Your task to perform on an android device: Clear all items from cart on costco. Add "usb-c" to the cart on costco, then select checkout. Image 0: 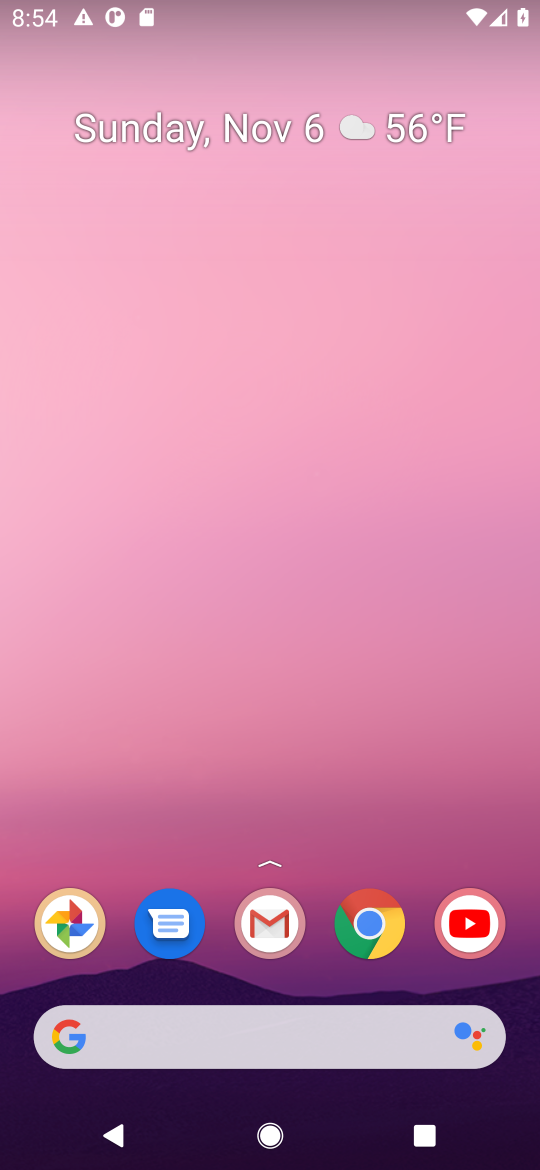
Step 0: click (381, 939)
Your task to perform on an android device: Clear all items from cart on costco. Add "usb-c" to the cart on costco, then select checkout. Image 1: 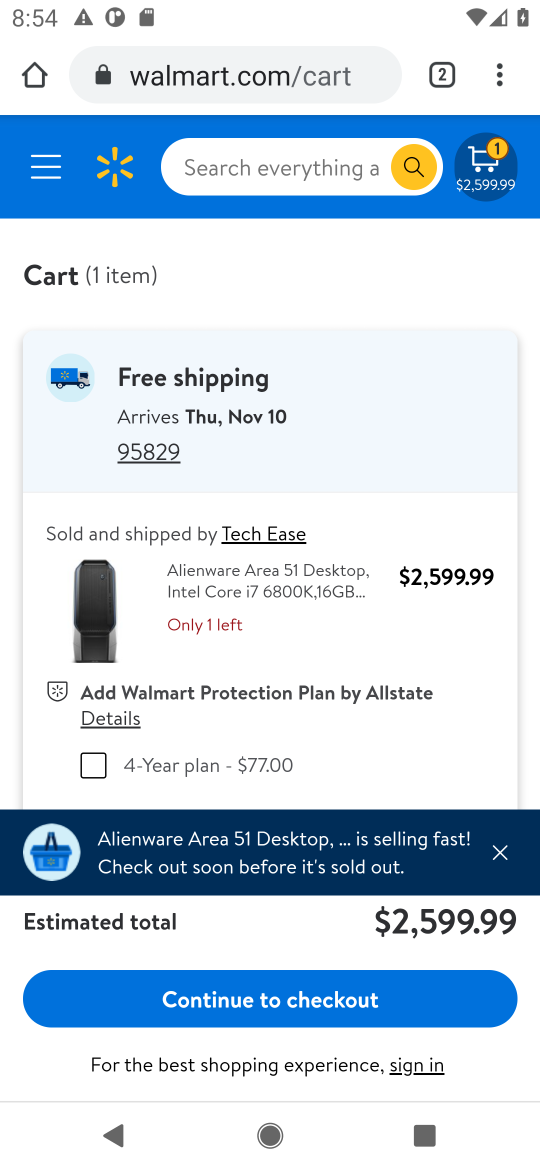
Step 1: click (259, 78)
Your task to perform on an android device: Clear all items from cart on costco. Add "usb-c" to the cart on costco, then select checkout. Image 2: 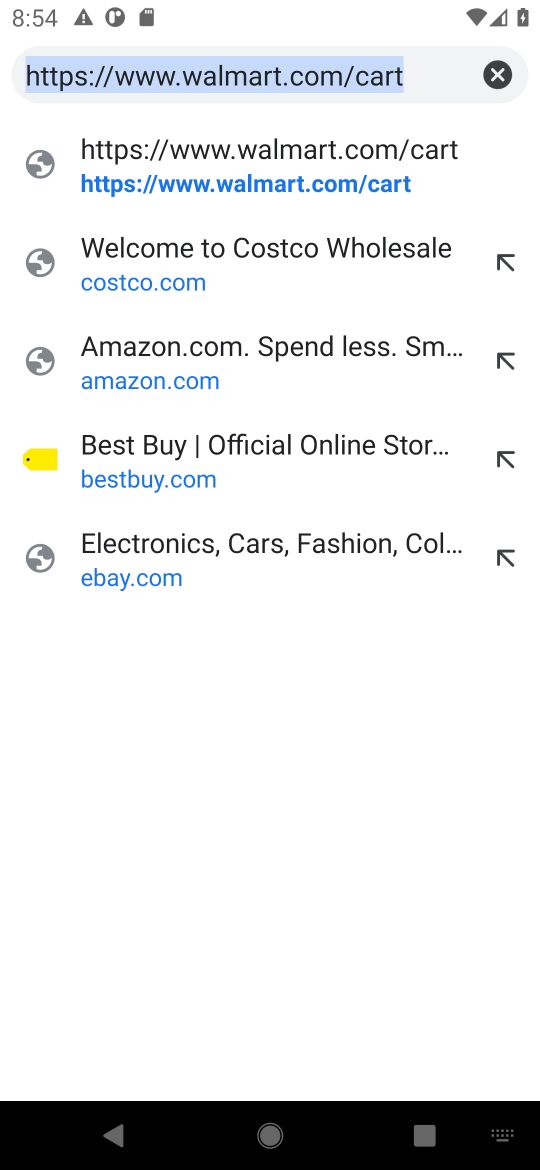
Step 2: click (135, 289)
Your task to perform on an android device: Clear all items from cart on costco. Add "usb-c" to the cart on costco, then select checkout. Image 3: 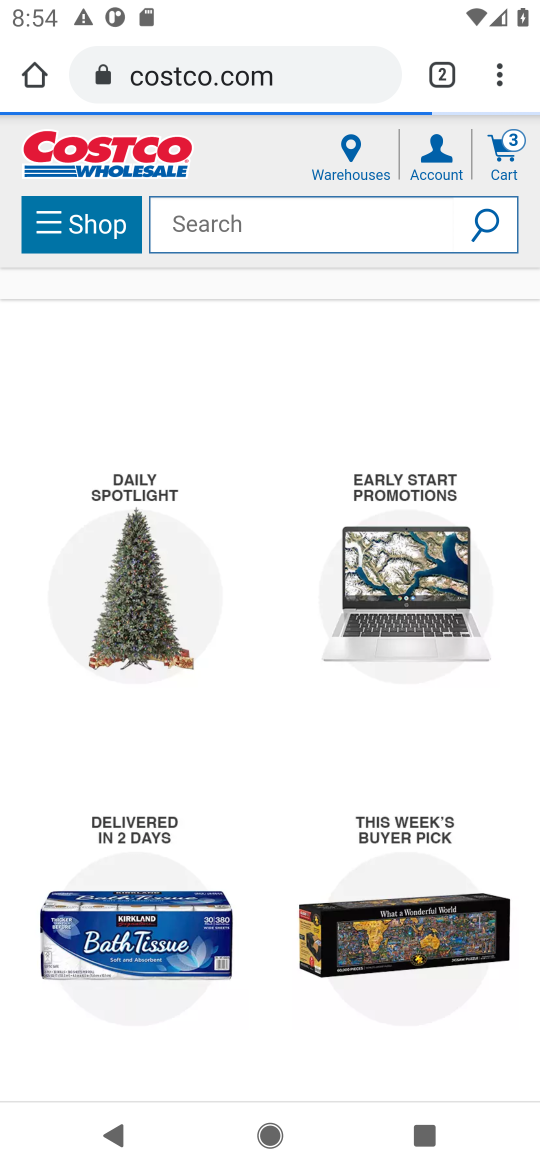
Step 3: click (503, 140)
Your task to perform on an android device: Clear all items from cart on costco. Add "usb-c" to the cart on costco, then select checkout. Image 4: 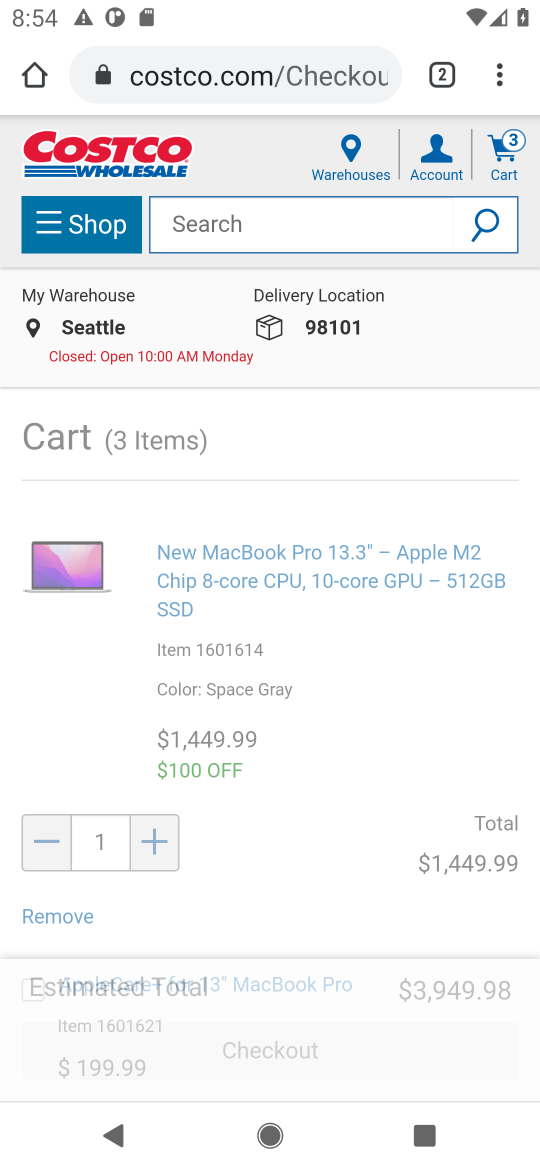
Step 4: click (85, 920)
Your task to perform on an android device: Clear all items from cart on costco. Add "usb-c" to the cart on costco, then select checkout. Image 5: 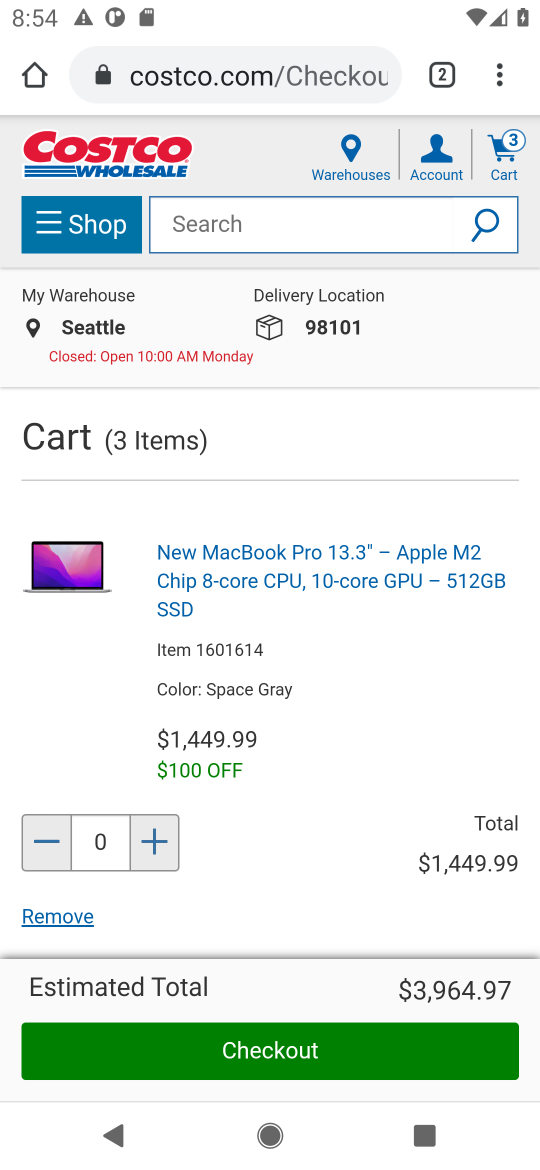
Step 5: click (85, 920)
Your task to perform on an android device: Clear all items from cart on costco. Add "usb-c" to the cart on costco, then select checkout. Image 6: 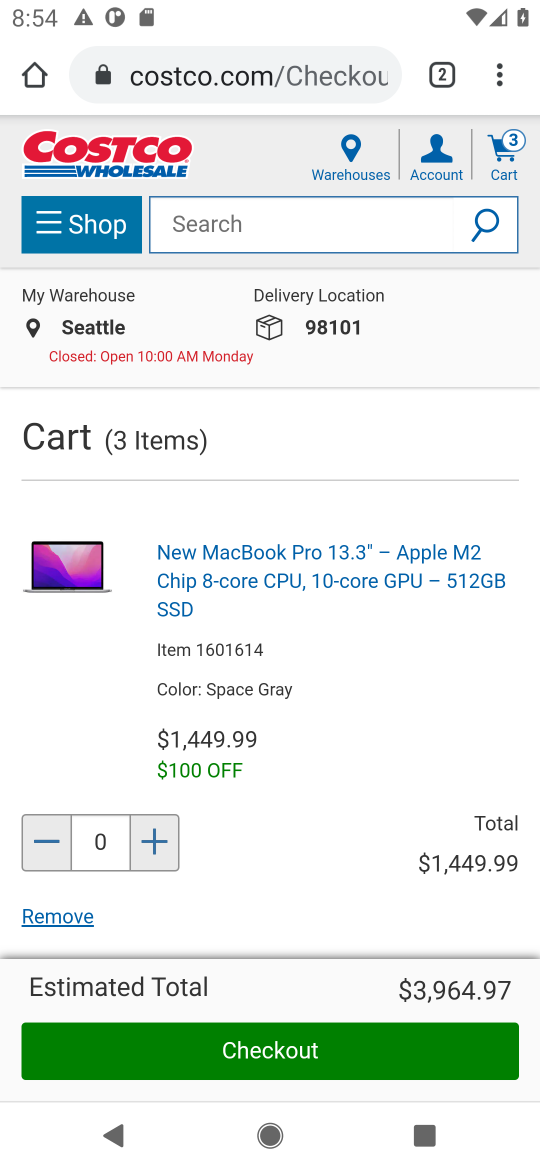
Step 6: drag from (347, 893) to (361, 382)
Your task to perform on an android device: Clear all items from cart on costco. Add "usb-c" to the cart on costco, then select checkout. Image 7: 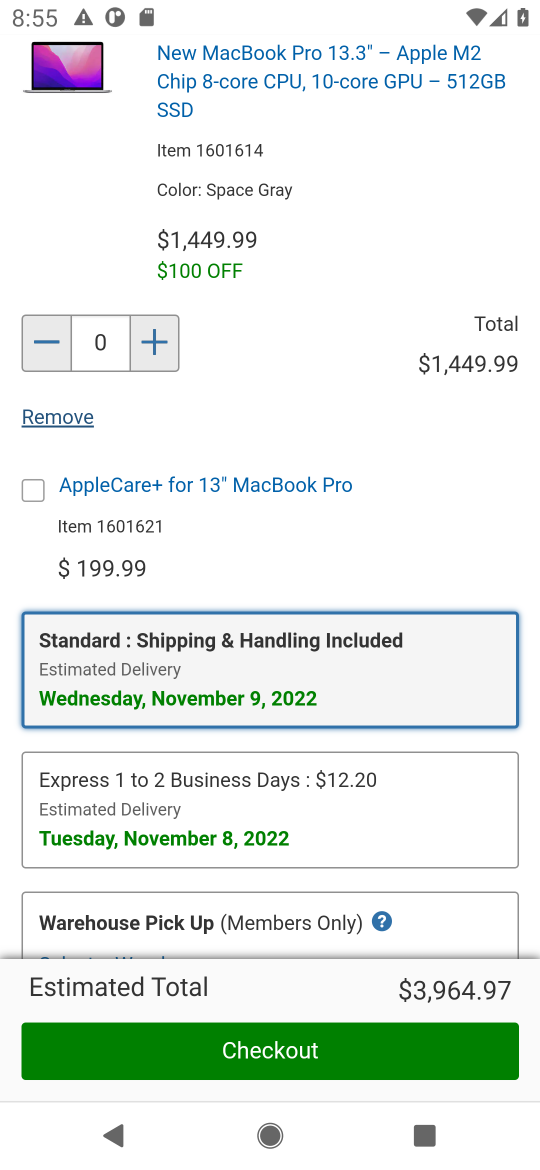
Step 7: click (51, 538)
Your task to perform on an android device: Clear all items from cart on costco. Add "usb-c" to the cart on costco, then select checkout. Image 8: 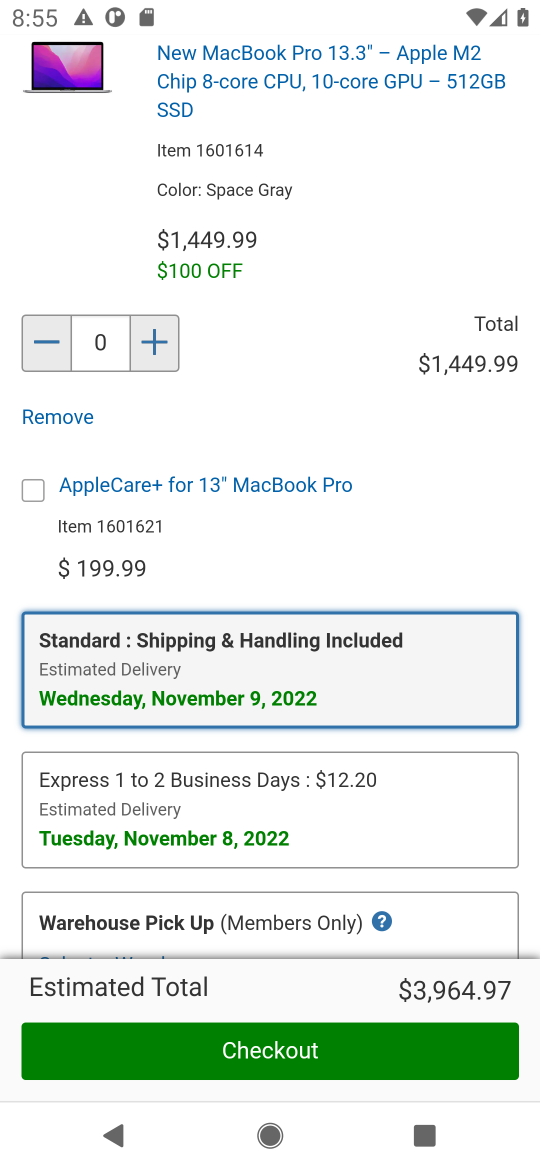
Step 8: drag from (321, 632) to (333, 242)
Your task to perform on an android device: Clear all items from cart on costco. Add "usb-c" to the cart on costco, then select checkout. Image 9: 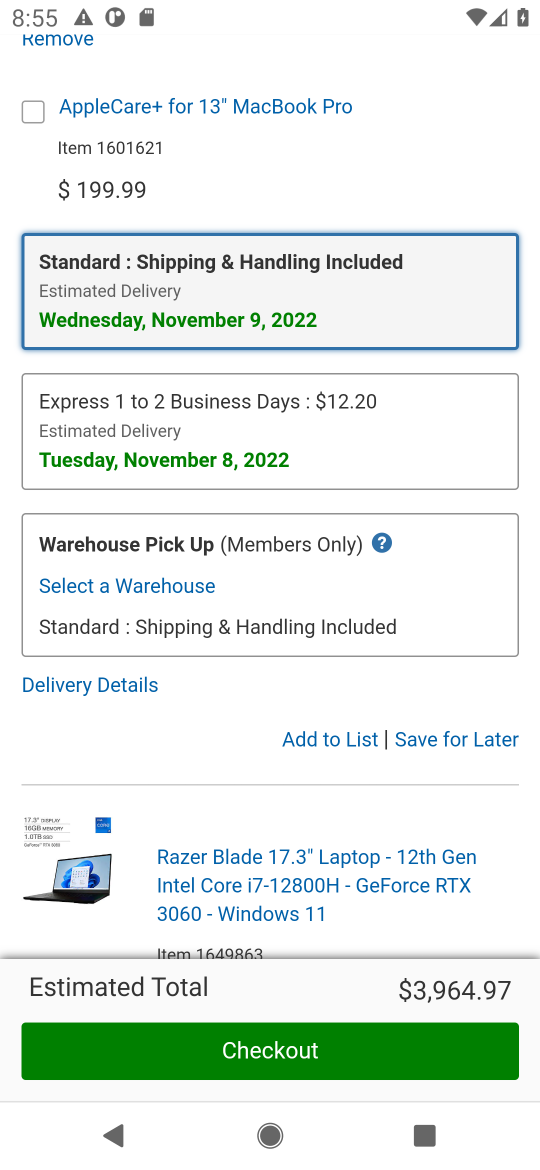
Step 9: drag from (302, 689) to (311, 374)
Your task to perform on an android device: Clear all items from cart on costco. Add "usb-c" to the cart on costco, then select checkout. Image 10: 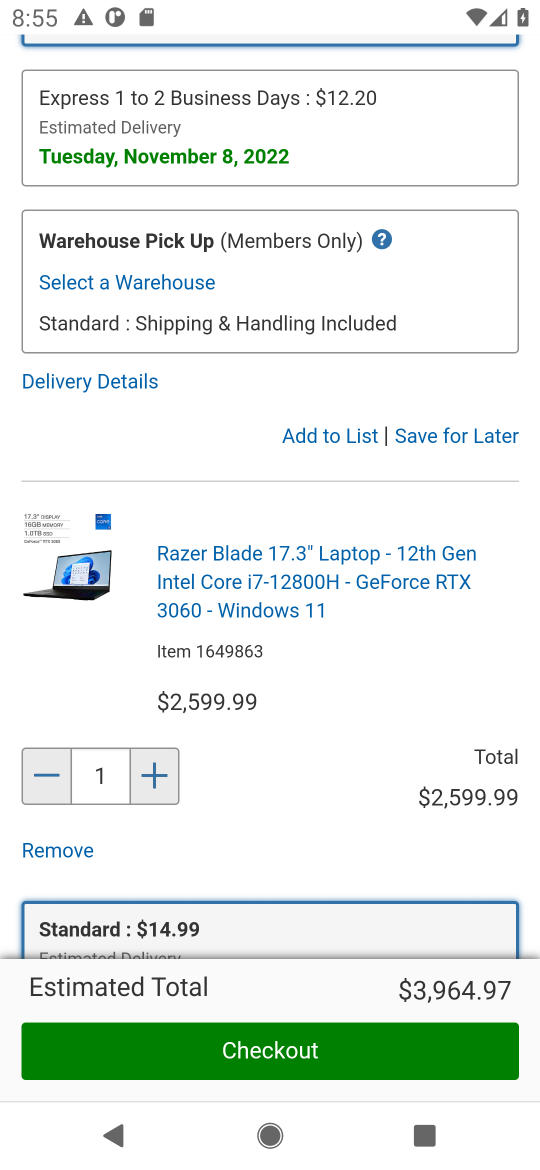
Step 10: click (431, 419)
Your task to perform on an android device: Clear all items from cart on costco. Add "usb-c" to the cart on costco, then select checkout. Image 11: 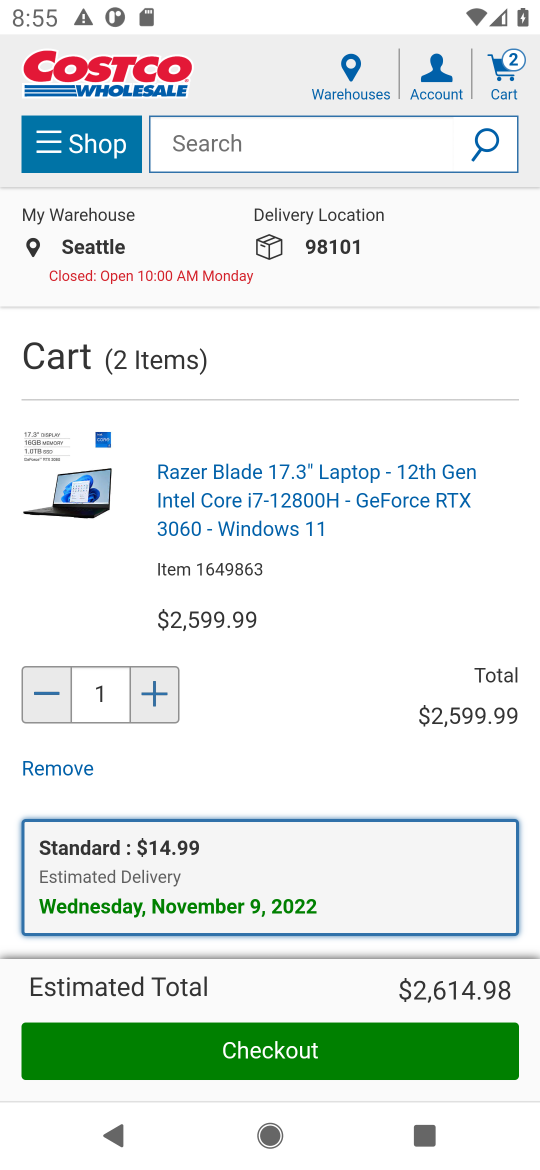
Step 11: drag from (374, 773) to (370, 411)
Your task to perform on an android device: Clear all items from cart on costco. Add "usb-c" to the cart on costco, then select checkout. Image 12: 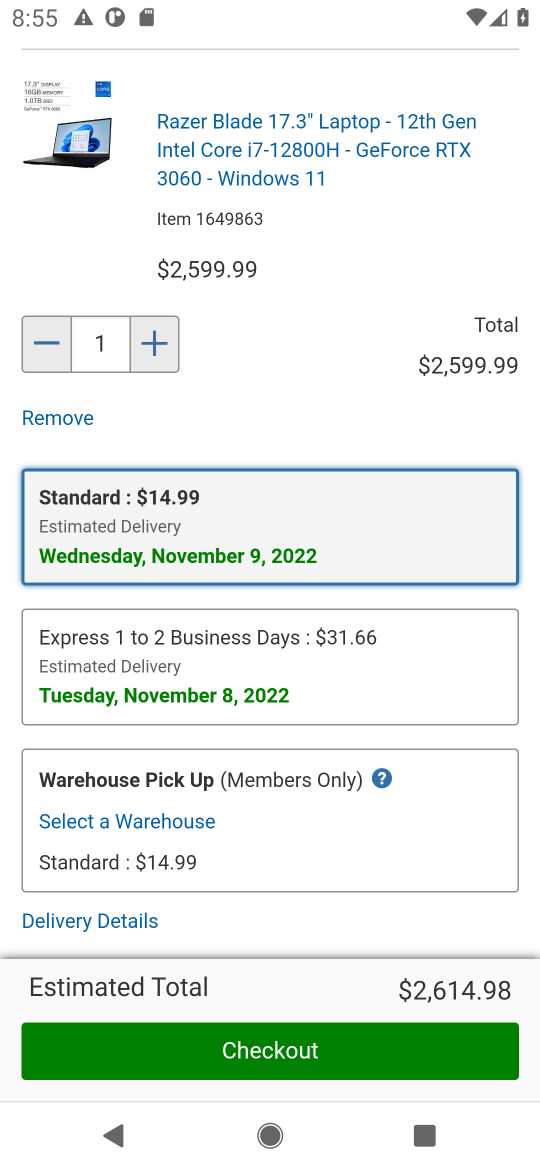
Step 12: drag from (349, 752) to (367, 256)
Your task to perform on an android device: Clear all items from cart on costco. Add "usb-c" to the cart on costco, then select checkout. Image 13: 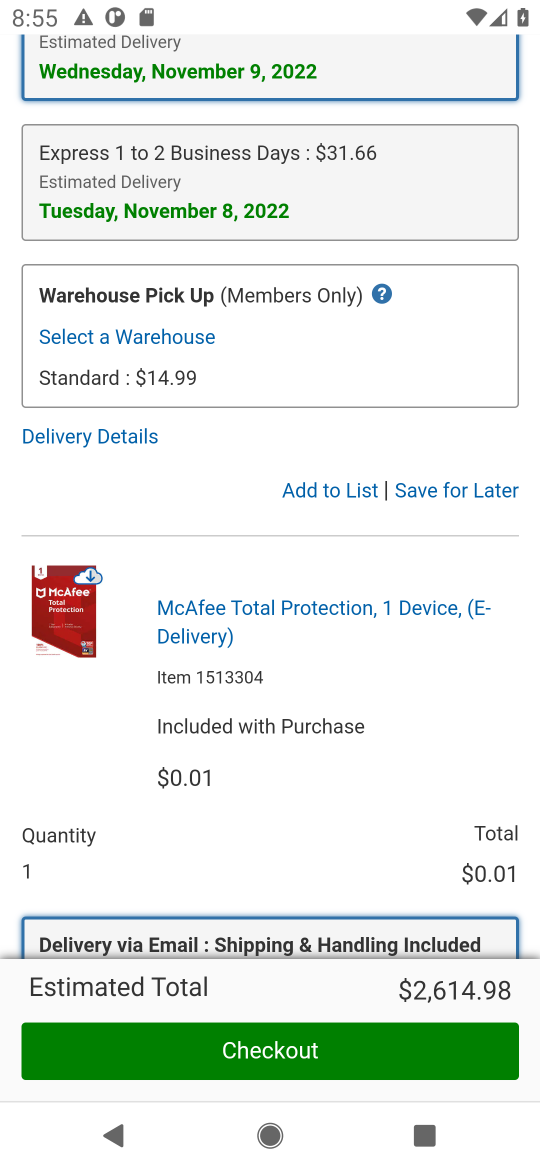
Step 13: click (465, 489)
Your task to perform on an android device: Clear all items from cart on costco. Add "usb-c" to the cart on costco, then select checkout. Image 14: 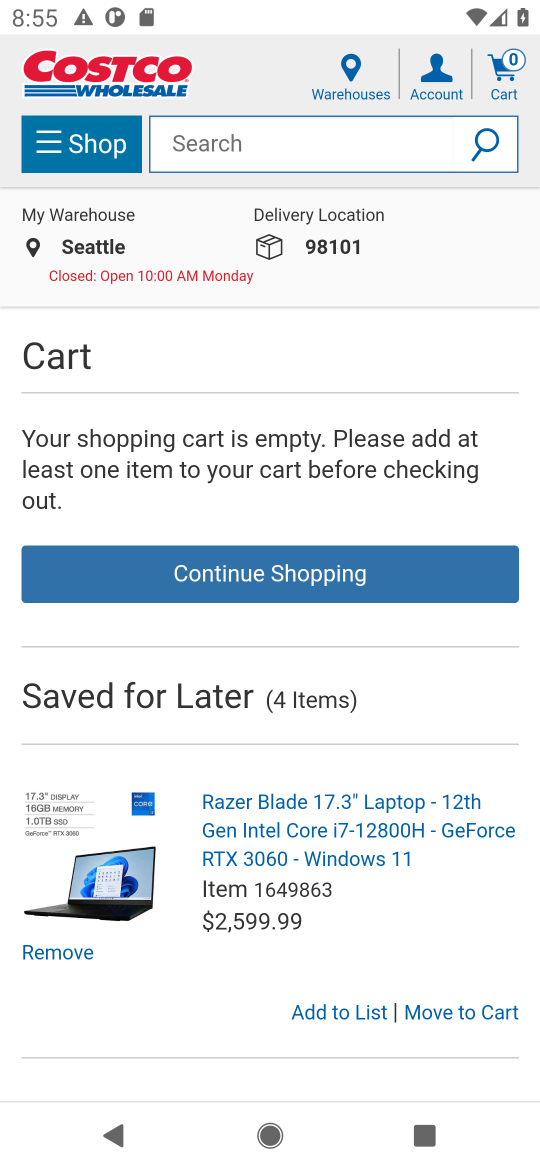
Step 14: drag from (261, 806) to (280, 867)
Your task to perform on an android device: Clear all items from cart on costco. Add "usb-c" to the cart on costco, then select checkout. Image 15: 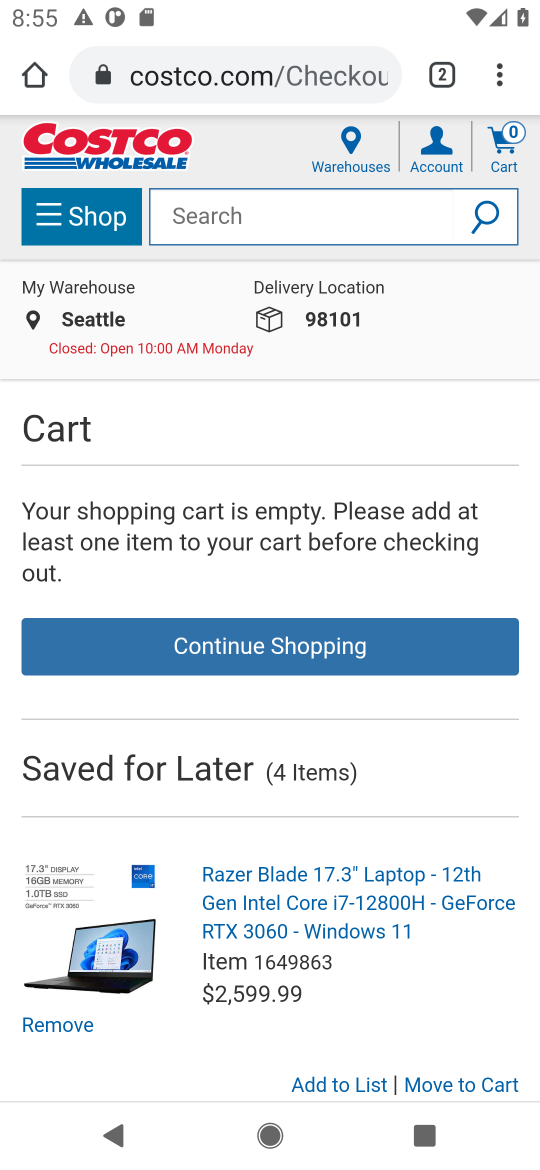
Step 15: click (273, 213)
Your task to perform on an android device: Clear all items from cart on costco. Add "usb-c" to the cart on costco, then select checkout. Image 16: 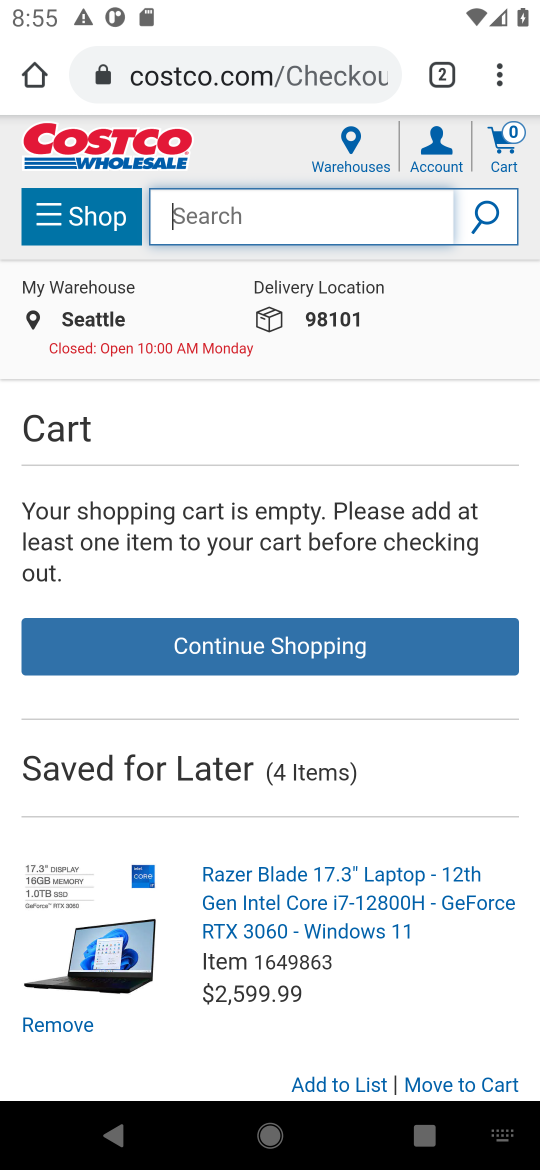
Step 16: type "usb-c"
Your task to perform on an android device: Clear all items from cart on costco. Add "usb-c" to the cart on costco, then select checkout. Image 17: 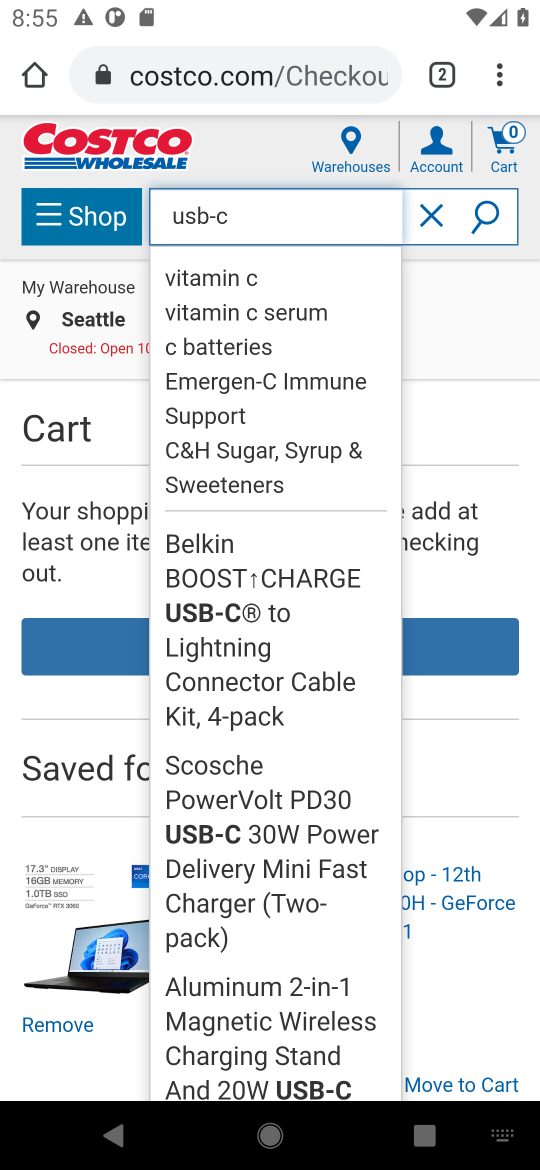
Step 17: click (493, 216)
Your task to perform on an android device: Clear all items from cart on costco. Add "usb-c" to the cart on costco, then select checkout. Image 18: 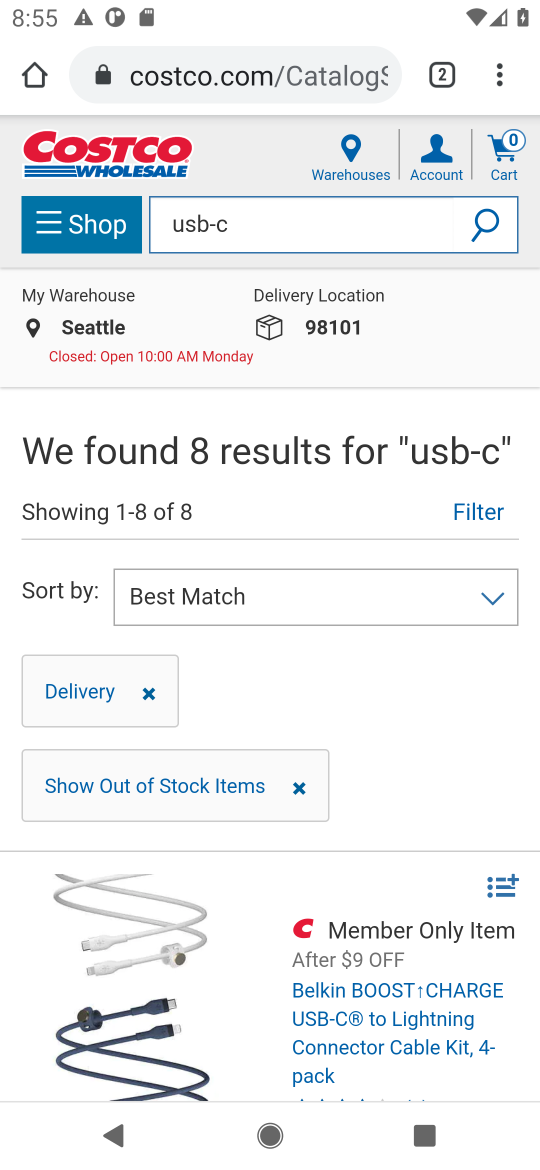
Step 18: drag from (259, 845) to (233, 537)
Your task to perform on an android device: Clear all items from cart on costco. Add "usb-c" to the cart on costco, then select checkout. Image 19: 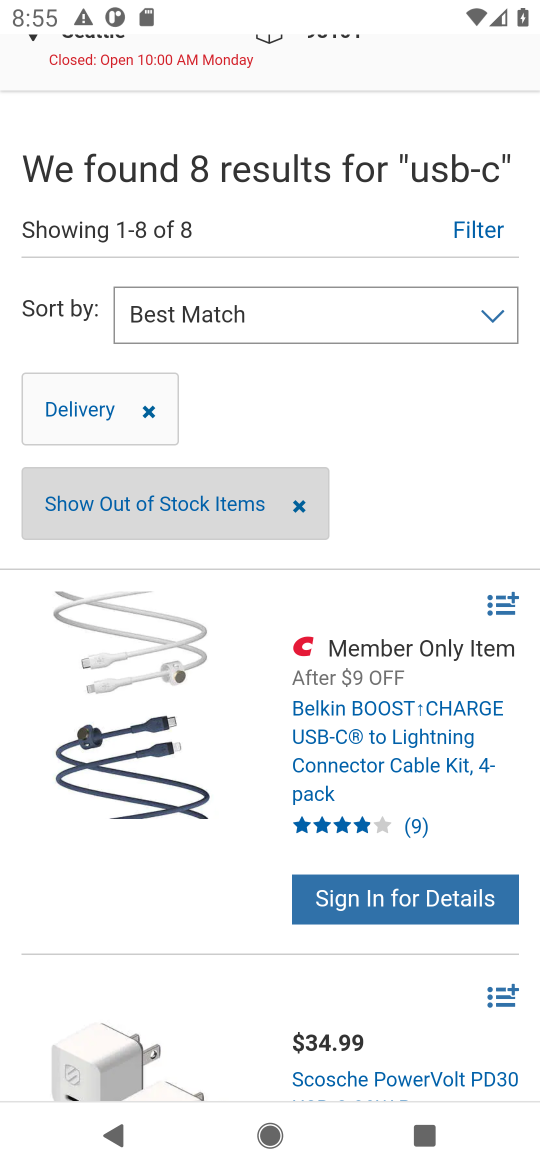
Step 19: click (137, 748)
Your task to perform on an android device: Clear all items from cart on costco. Add "usb-c" to the cart on costco, then select checkout. Image 20: 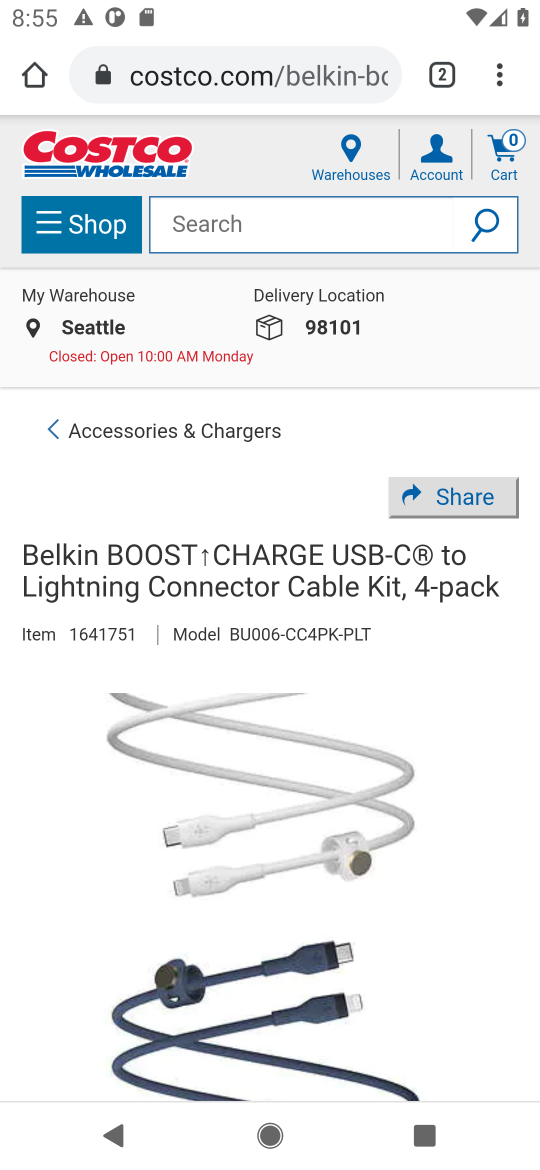
Step 20: drag from (222, 883) to (212, 347)
Your task to perform on an android device: Clear all items from cart on costco. Add "usb-c" to the cart on costco, then select checkout. Image 21: 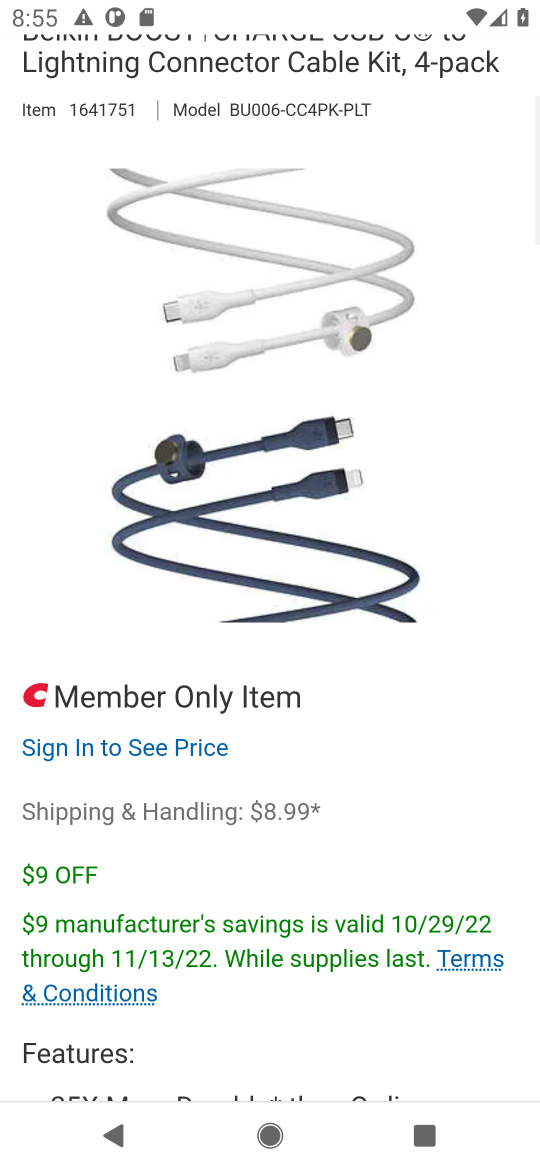
Step 21: drag from (178, 810) to (184, 284)
Your task to perform on an android device: Clear all items from cart on costco. Add "usb-c" to the cart on costco, then select checkout. Image 22: 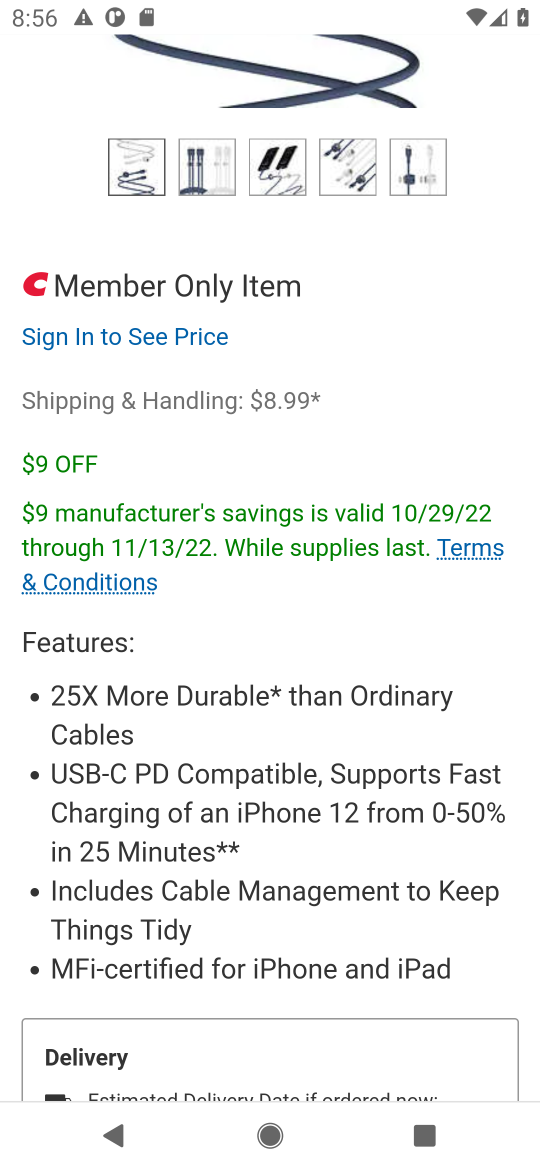
Step 22: drag from (166, 747) to (167, 291)
Your task to perform on an android device: Clear all items from cart on costco. Add "usb-c" to the cart on costco, then select checkout. Image 23: 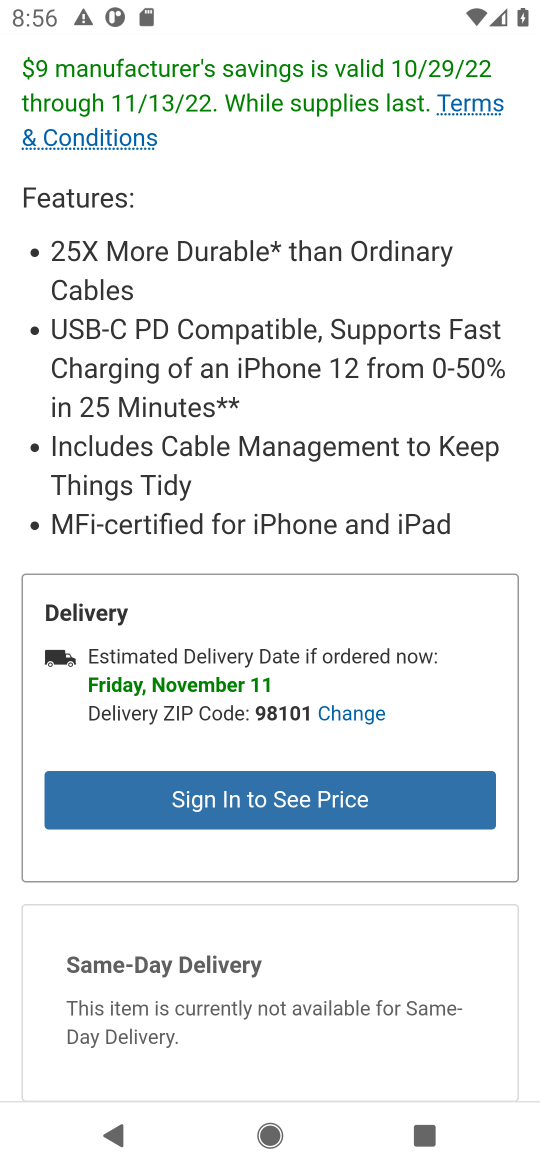
Step 23: drag from (159, 849) to (175, 412)
Your task to perform on an android device: Clear all items from cart on costco. Add "usb-c" to the cart on costco, then select checkout. Image 24: 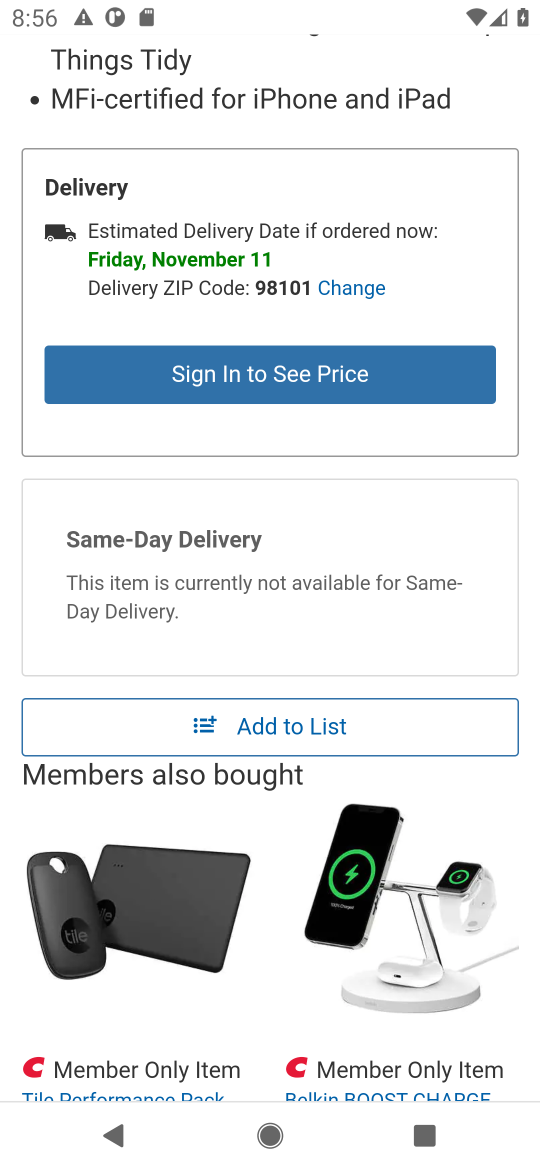
Step 24: drag from (197, 308) to (204, 1162)
Your task to perform on an android device: Clear all items from cart on costco. Add "usb-c" to the cart on costco, then select checkout. Image 25: 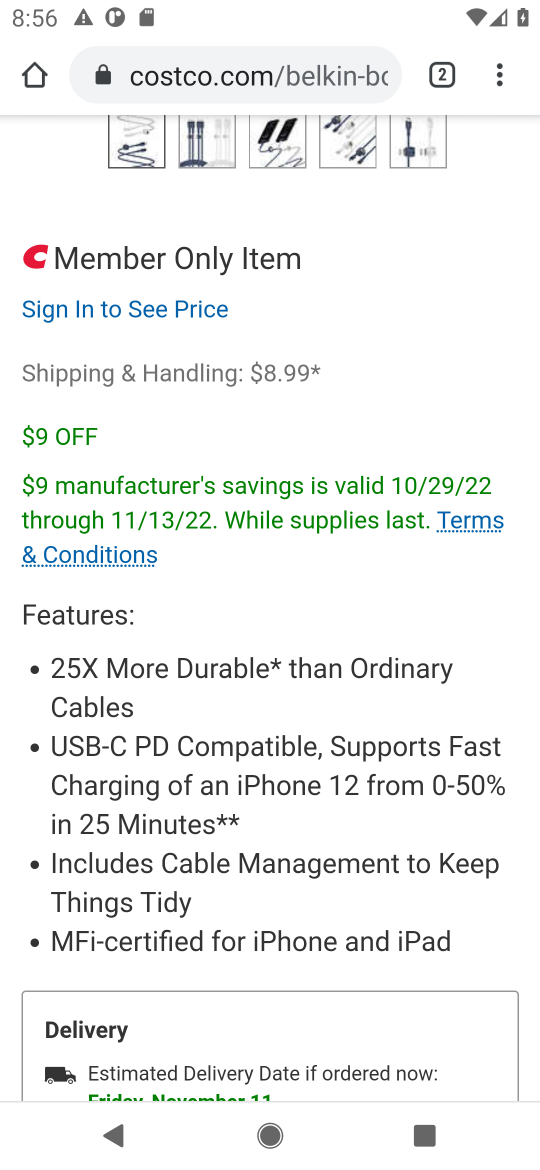
Step 25: press back button
Your task to perform on an android device: Clear all items from cart on costco. Add "usb-c" to the cart on costco, then select checkout. Image 26: 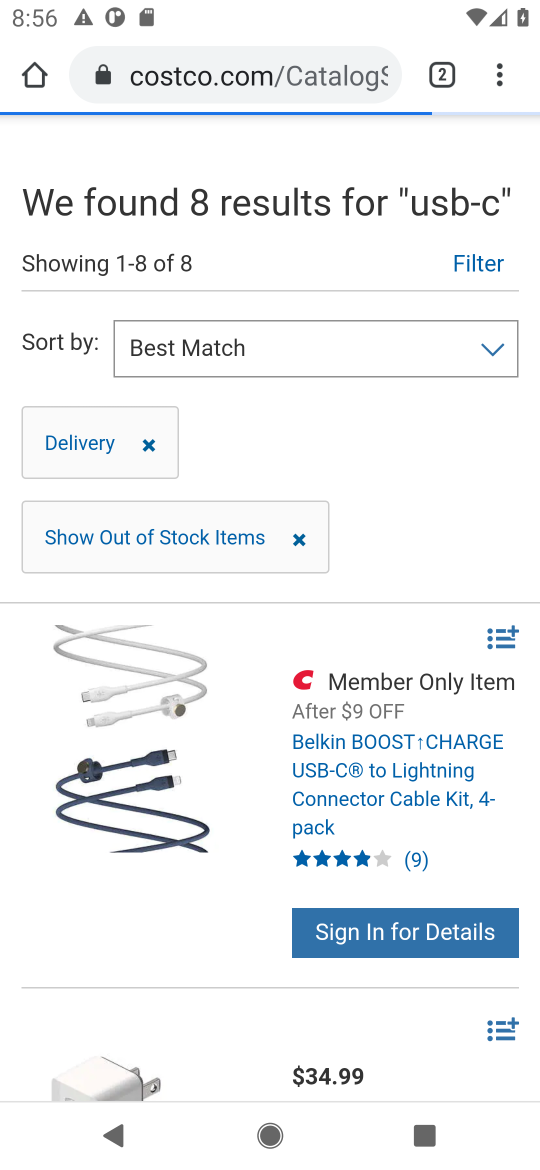
Step 26: drag from (255, 873) to (264, 398)
Your task to perform on an android device: Clear all items from cart on costco. Add "usb-c" to the cart on costco, then select checkout. Image 27: 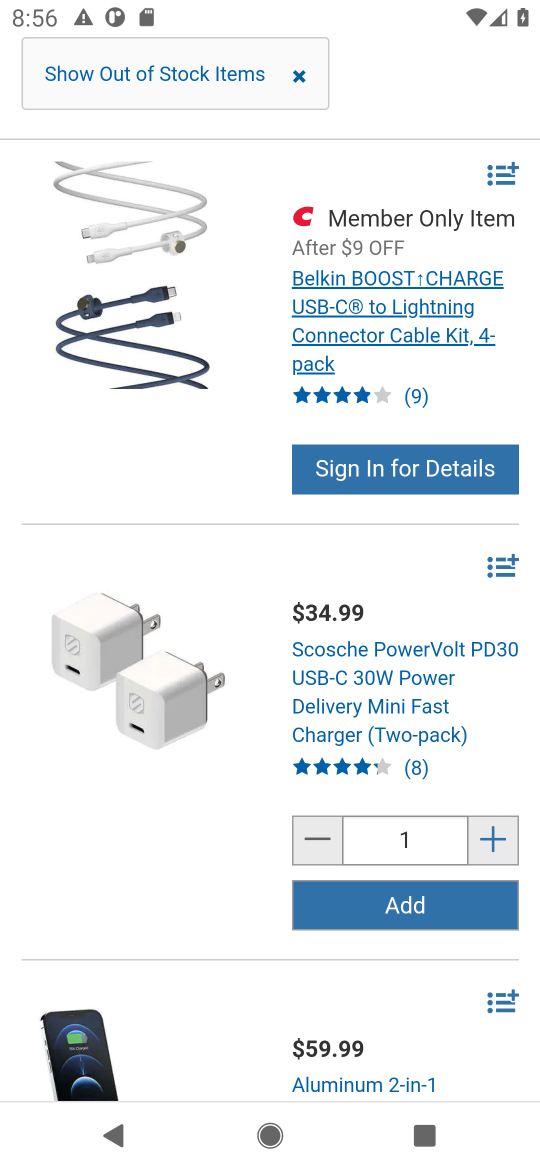
Step 27: click (376, 904)
Your task to perform on an android device: Clear all items from cart on costco. Add "usb-c" to the cart on costco, then select checkout. Image 28: 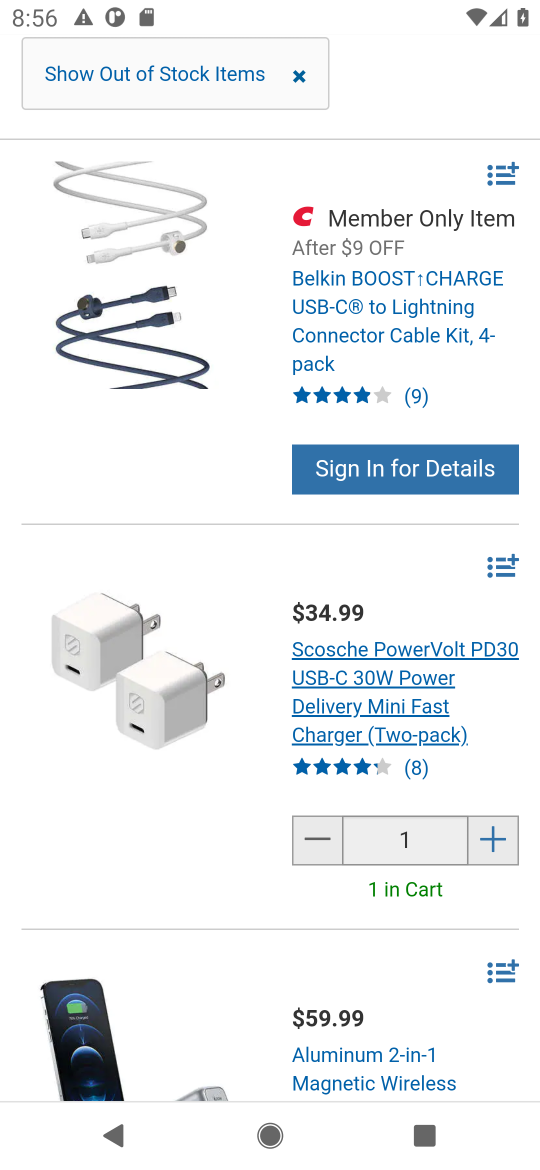
Step 28: drag from (334, 633) to (316, 984)
Your task to perform on an android device: Clear all items from cart on costco. Add "usb-c" to the cart on costco, then select checkout. Image 29: 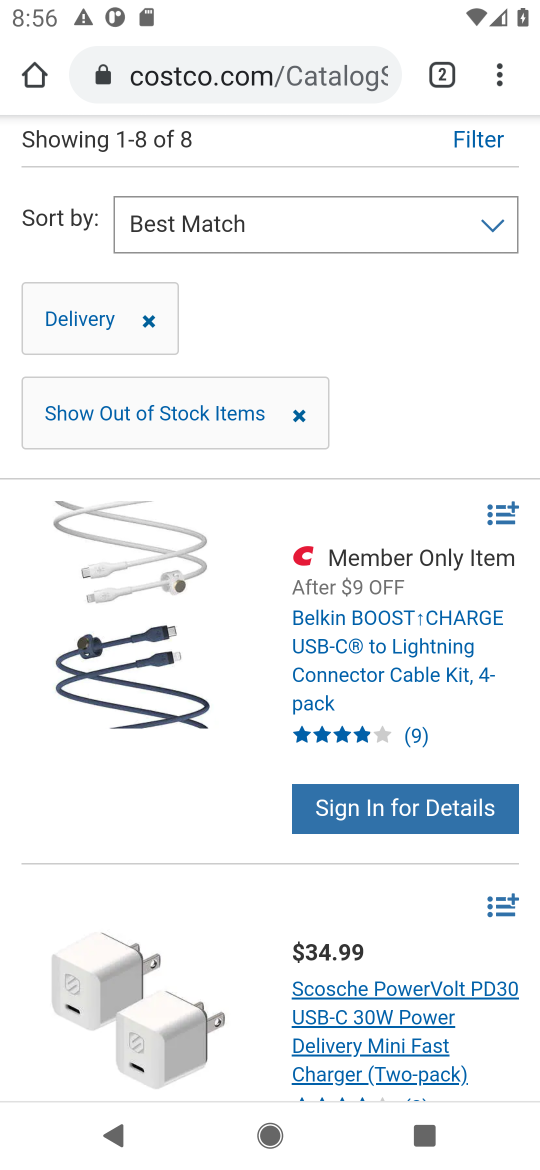
Step 29: drag from (386, 252) to (390, 798)
Your task to perform on an android device: Clear all items from cart on costco. Add "usb-c" to the cart on costco, then select checkout. Image 30: 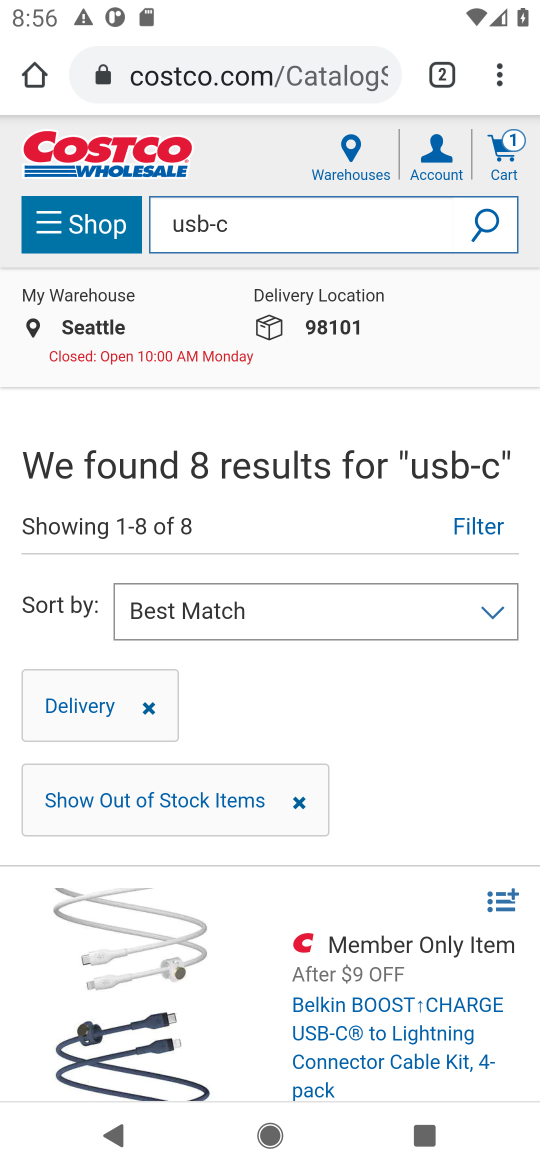
Step 30: click (499, 155)
Your task to perform on an android device: Clear all items from cart on costco. Add "usb-c" to the cart on costco, then select checkout. Image 31: 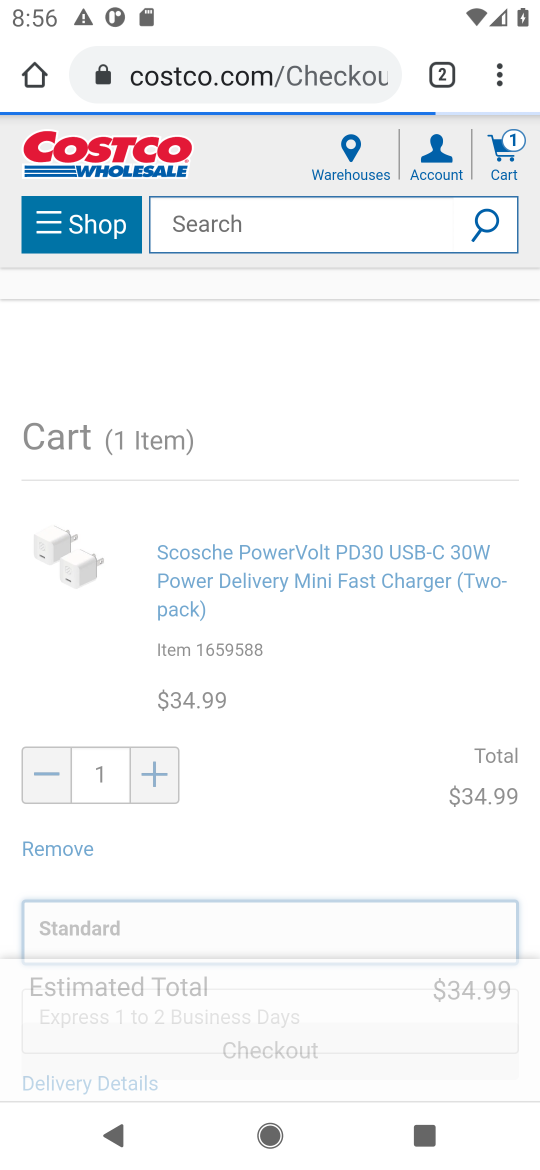
Step 31: drag from (330, 796) to (303, 567)
Your task to perform on an android device: Clear all items from cart on costco. Add "usb-c" to the cart on costco, then select checkout. Image 32: 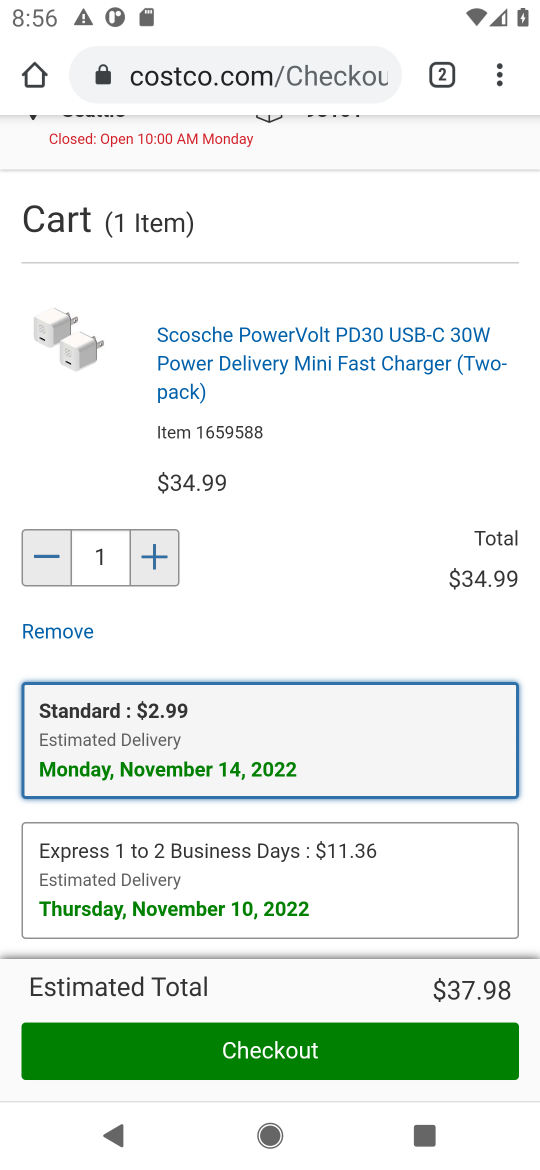
Step 32: click (265, 1046)
Your task to perform on an android device: Clear all items from cart on costco. Add "usb-c" to the cart on costco, then select checkout. Image 33: 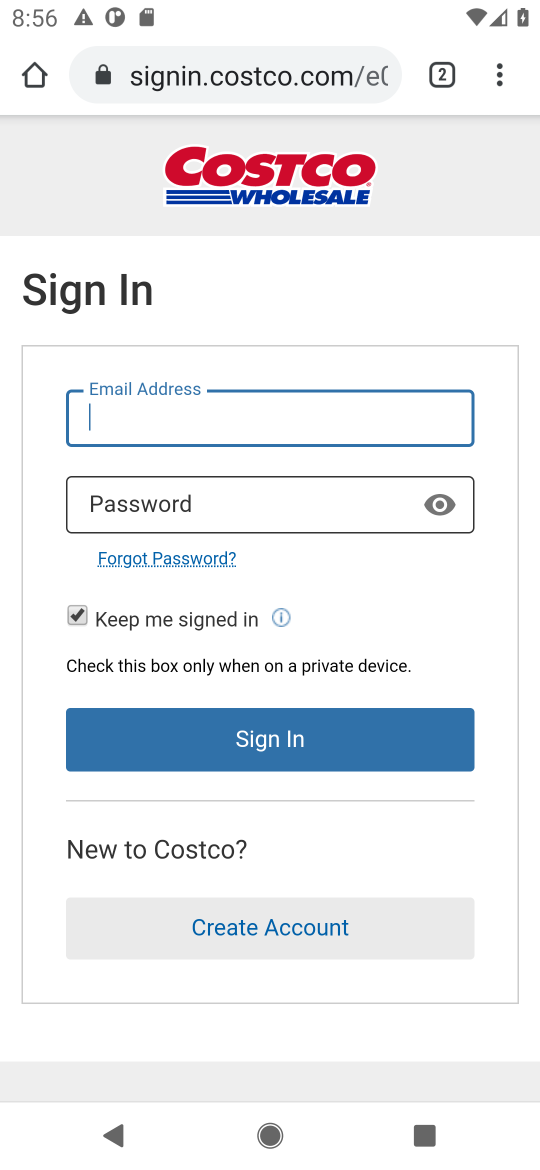
Step 33: task complete